Your task to perform on an android device: Go to Maps Image 0: 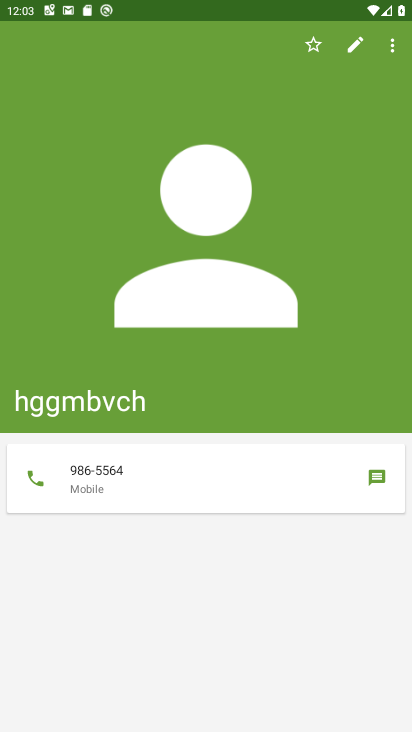
Step 0: press home button
Your task to perform on an android device: Go to Maps Image 1: 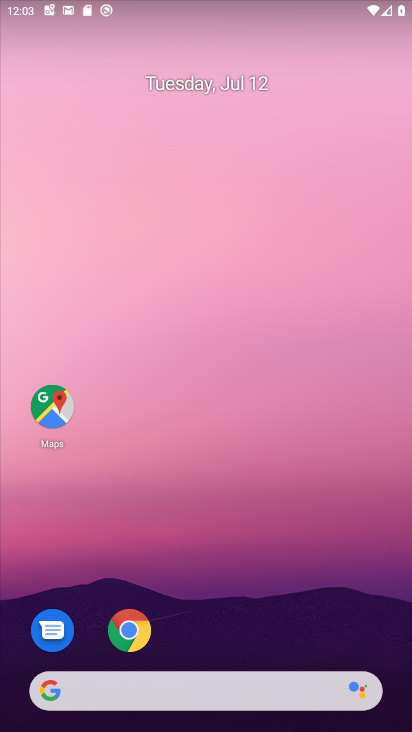
Step 1: drag from (201, 612) to (208, 105)
Your task to perform on an android device: Go to Maps Image 2: 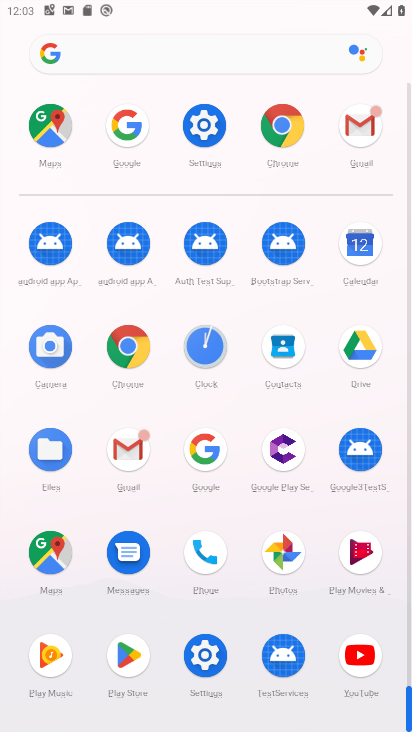
Step 2: click (53, 563)
Your task to perform on an android device: Go to Maps Image 3: 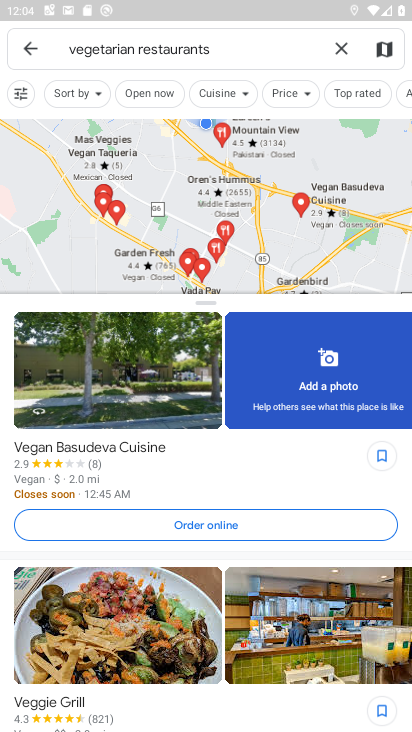
Step 3: task complete